Your task to perform on an android device: Open Yahoo.com Image 0: 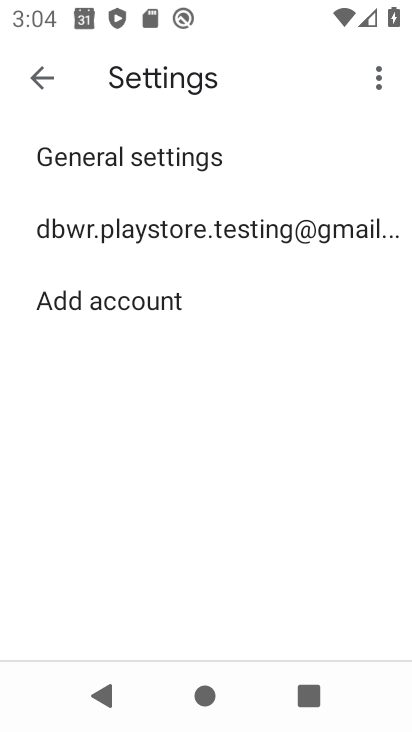
Step 0: press home button
Your task to perform on an android device: Open Yahoo.com Image 1: 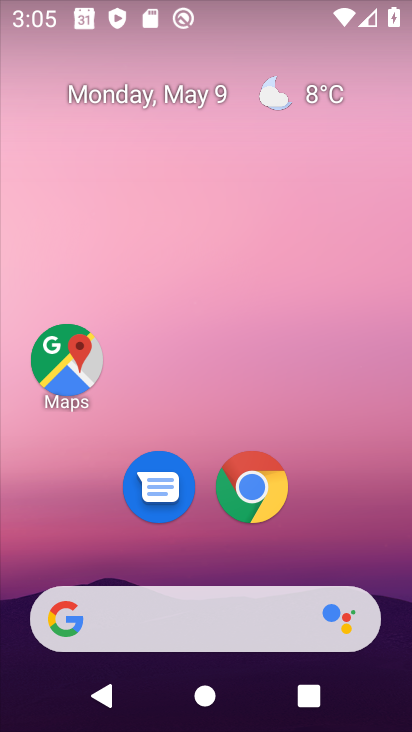
Step 1: click (250, 483)
Your task to perform on an android device: Open Yahoo.com Image 2: 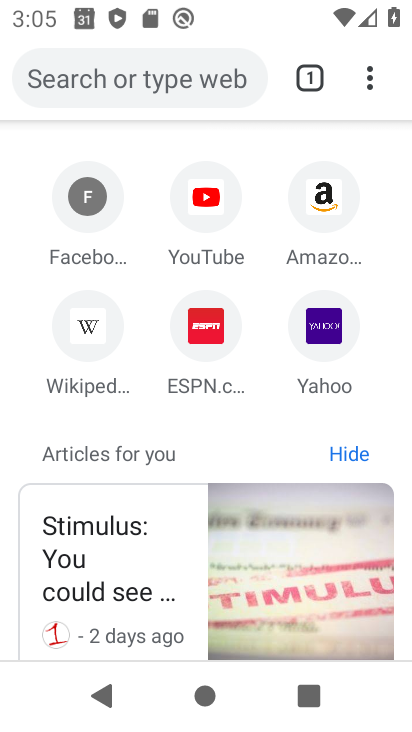
Step 2: click (319, 326)
Your task to perform on an android device: Open Yahoo.com Image 3: 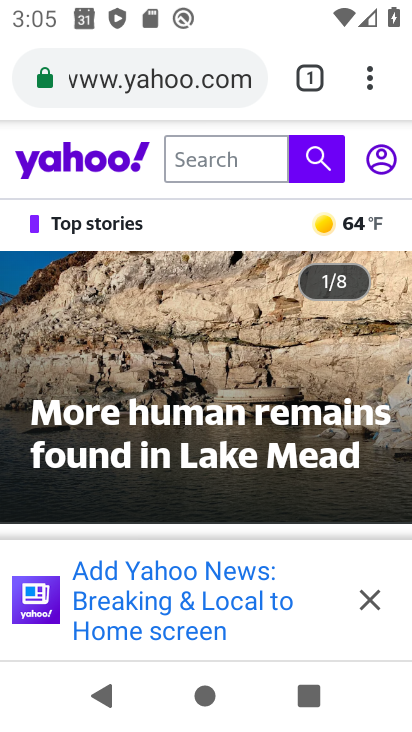
Step 3: drag from (202, 582) to (188, 313)
Your task to perform on an android device: Open Yahoo.com Image 4: 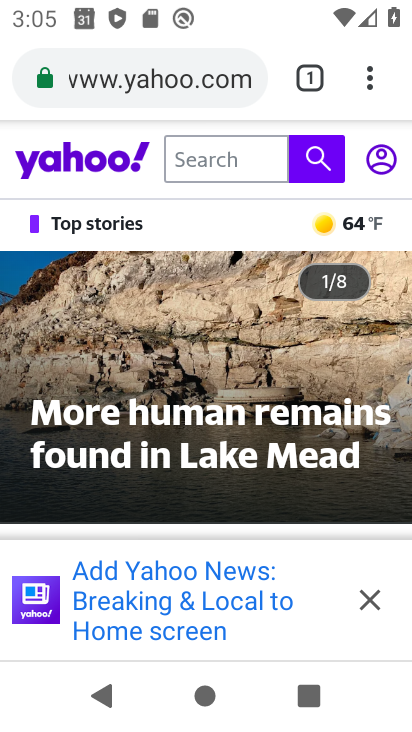
Step 4: click (374, 591)
Your task to perform on an android device: Open Yahoo.com Image 5: 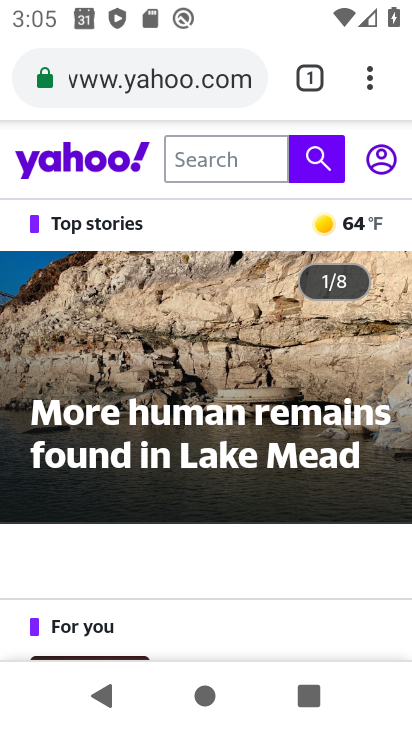
Step 5: task complete